Your task to perform on an android device: Open privacy settings Image 0: 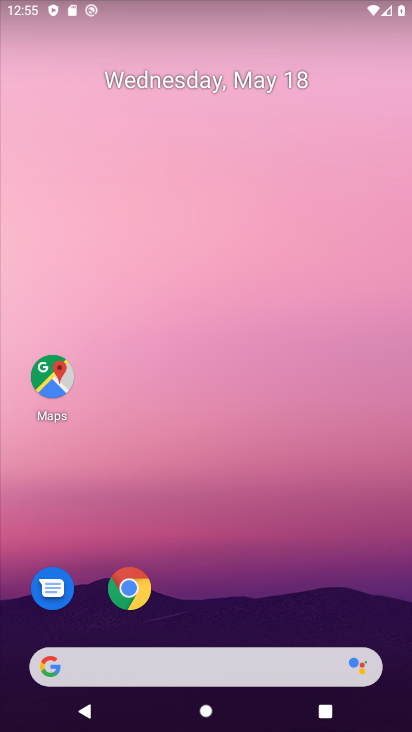
Step 0: drag from (351, 577) to (339, 211)
Your task to perform on an android device: Open privacy settings Image 1: 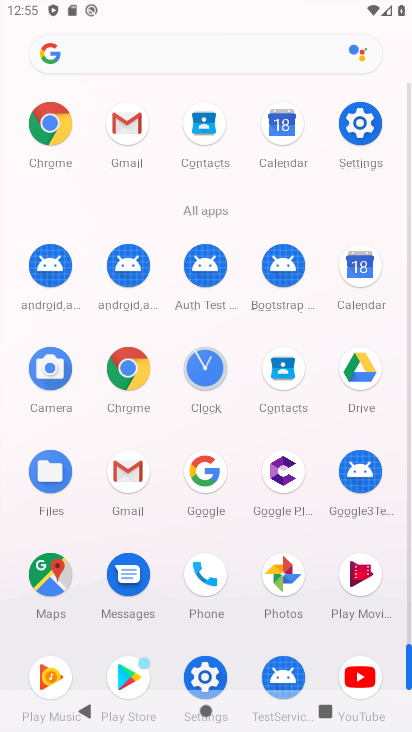
Step 1: click (365, 138)
Your task to perform on an android device: Open privacy settings Image 2: 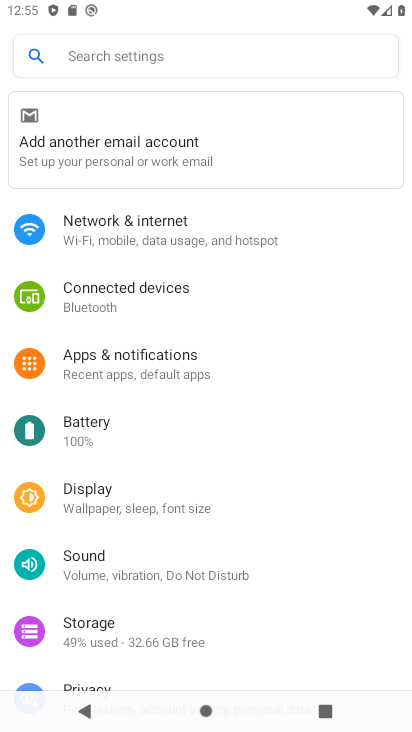
Step 2: drag from (360, 601) to (356, 424)
Your task to perform on an android device: Open privacy settings Image 3: 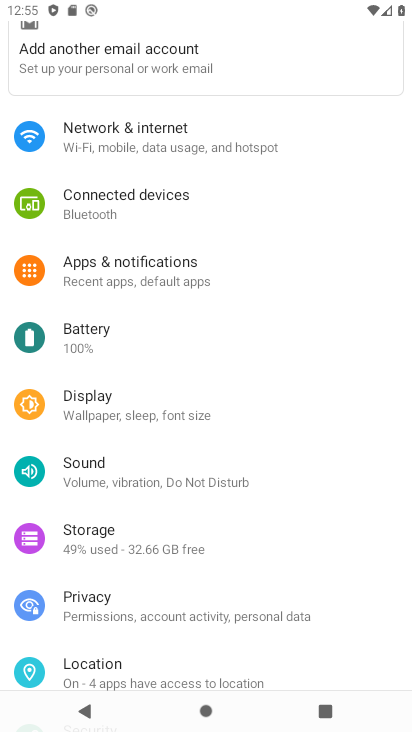
Step 3: drag from (340, 627) to (345, 460)
Your task to perform on an android device: Open privacy settings Image 4: 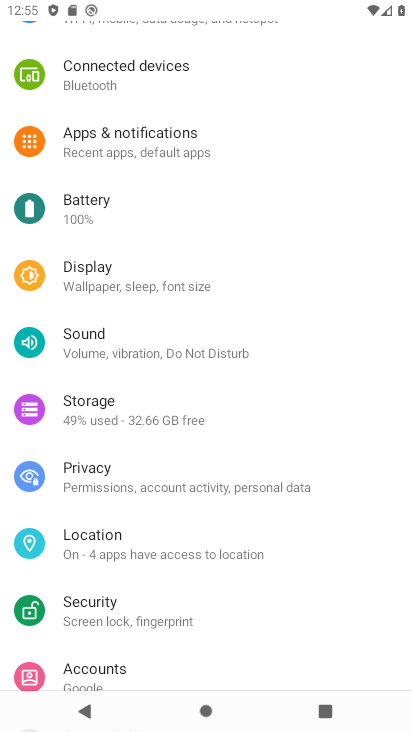
Step 4: drag from (329, 628) to (329, 453)
Your task to perform on an android device: Open privacy settings Image 5: 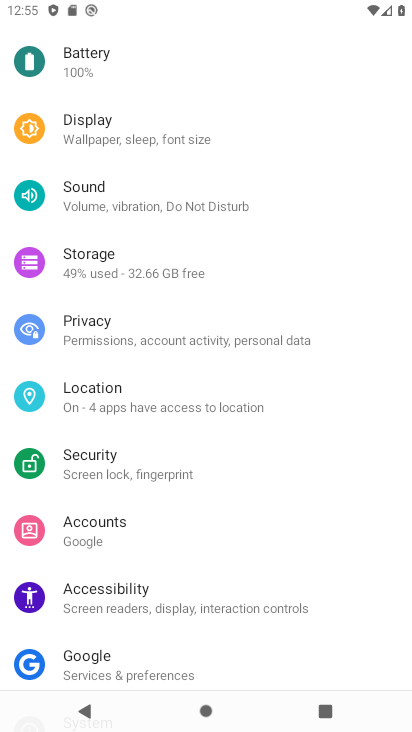
Step 5: drag from (341, 614) to (332, 400)
Your task to perform on an android device: Open privacy settings Image 6: 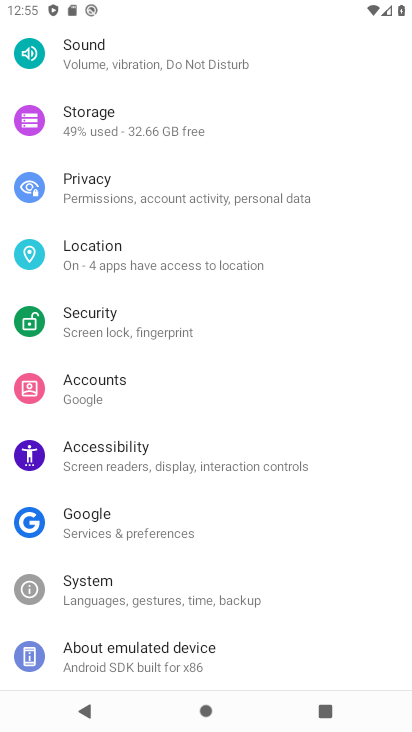
Step 6: drag from (337, 513) to (337, 424)
Your task to perform on an android device: Open privacy settings Image 7: 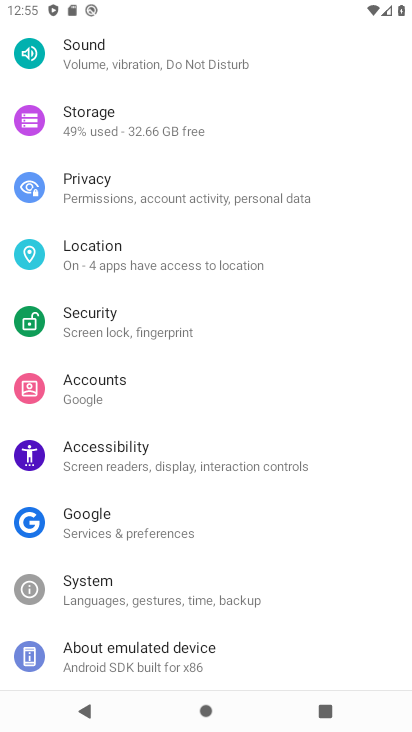
Step 7: drag from (335, 314) to (334, 509)
Your task to perform on an android device: Open privacy settings Image 8: 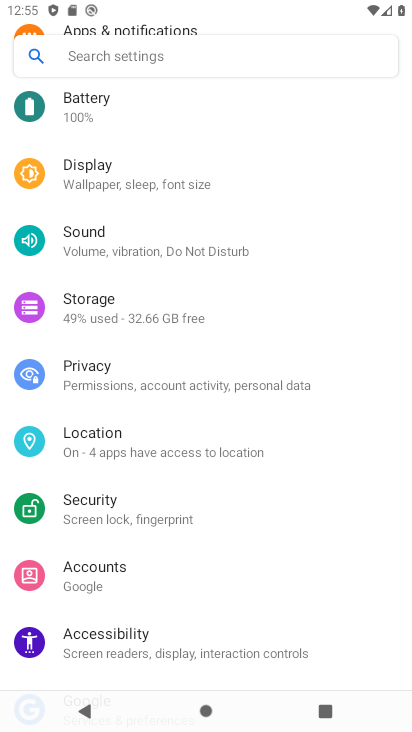
Step 8: drag from (346, 285) to (347, 460)
Your task to perform on an android device: Open privacy settings Image 9: 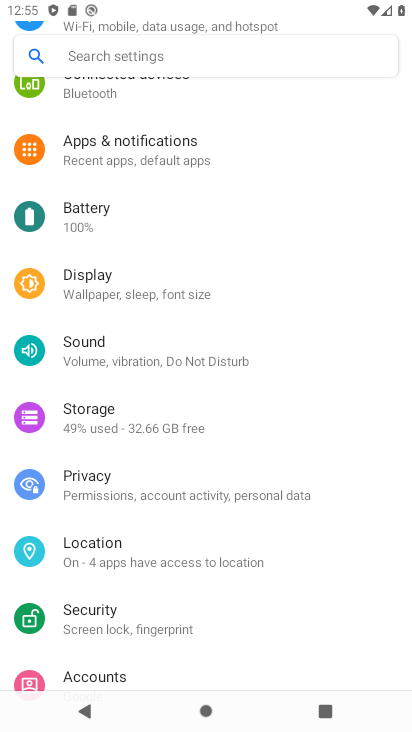
Step 9: drag from (350, 281) to (339, 453)
Your task to perform on an android device: Open privacy settings Image 10: 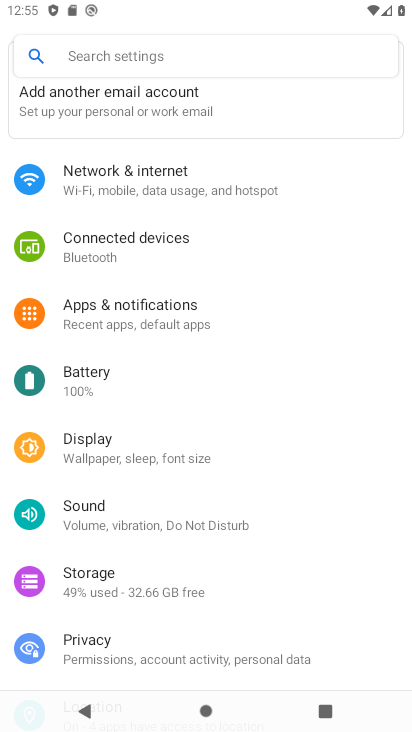
Step 10: drag from (328, 254) to (320, 460)
Your task to perform on an android device: Open privacy settings Image 11: 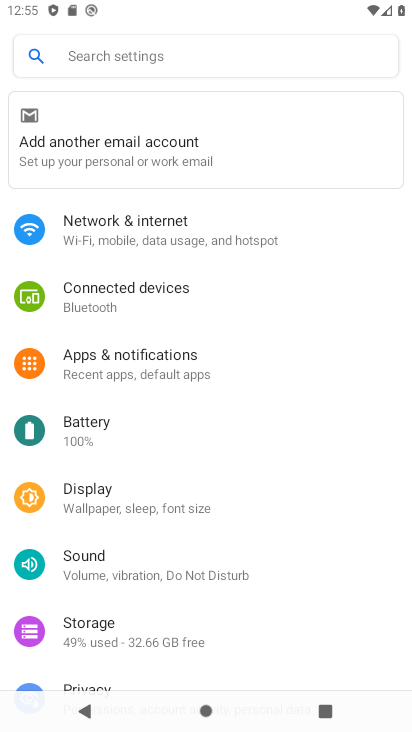
Step 11: drag from (335, 264) to (332, 431)
Your task to perform on an android device: Open privacy settings Image 12: 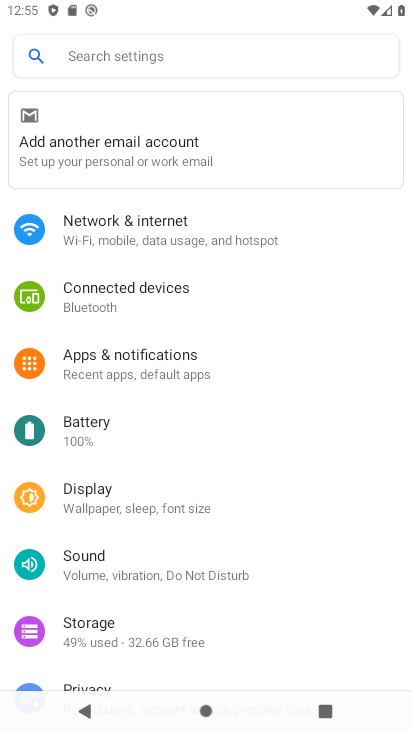
Step 12: drag from (336, 587) to (329, 406)
Your task to perform on an android device: Open privacy settings Image 13: 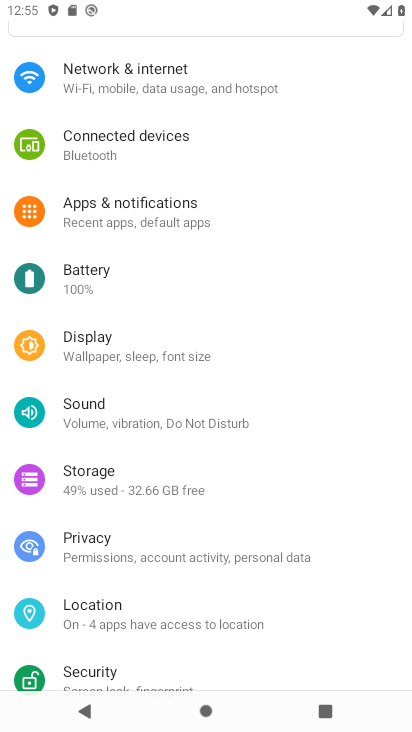
Step 13: drag from (340, 629) to (341, 431)
Your task to perform on an android device: Open privacy settings Image 14: 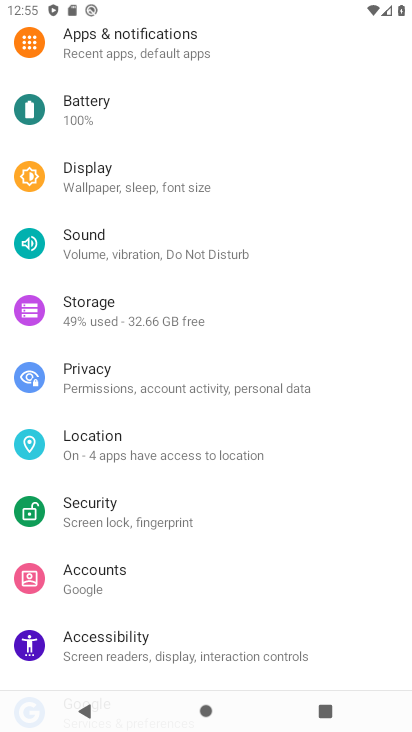
Step 14: drag from (328, 569) to (331, 396)
Your task to perform on an android device: Open privacy settings Image 15: 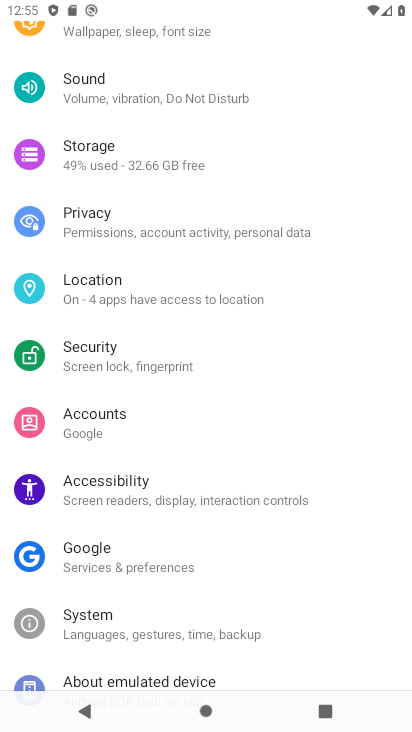
Step 15: click (239, 236)
Your task to perform on an android device: Open privacy settings Image 16: 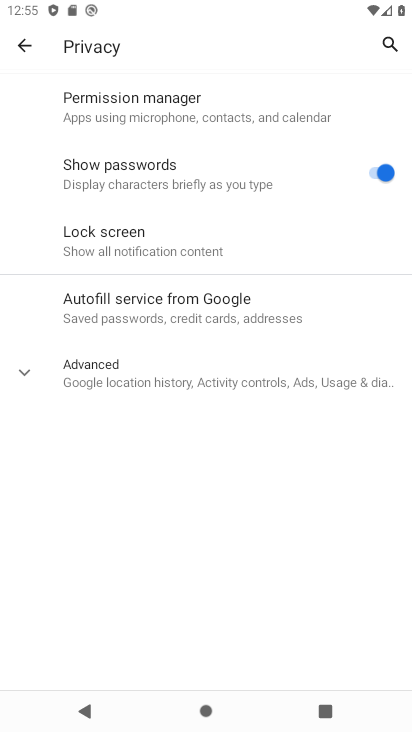
Step 16: task complete